Your task to perform on an android device: Go to Google maps Image 0: 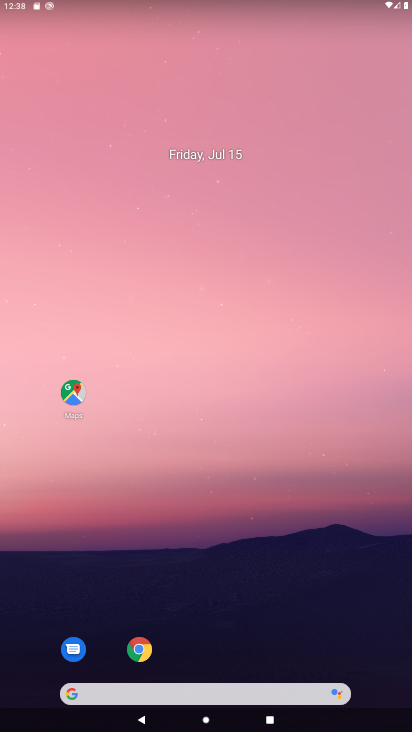
Step 0: drag from (258, 646) to (258, 130)
Your task to perform on an android device: Go to Google maps Image 1: 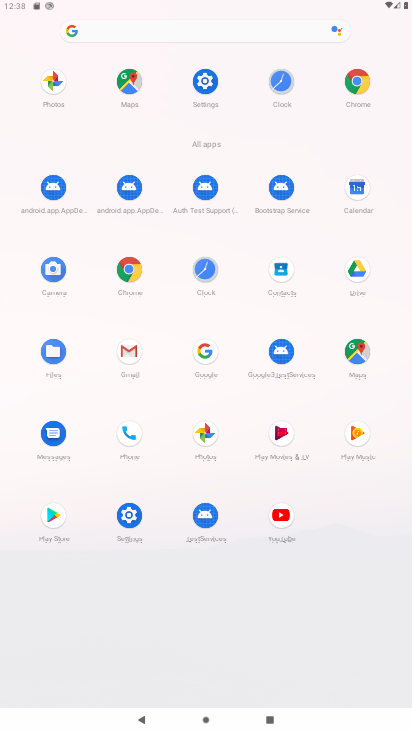
Step 1: click (201, 349)
Your task to perform on an android device: Go to Google maps Image 2: 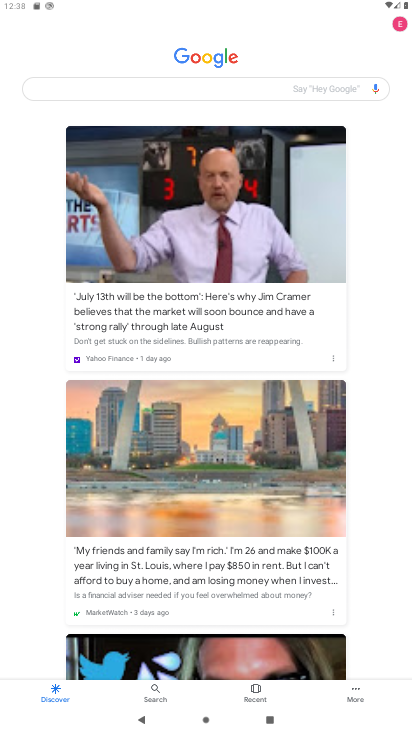
Step 2: task complete